Your task to perform on an android device: open app "Clock" (install if not already installed) Image 0: 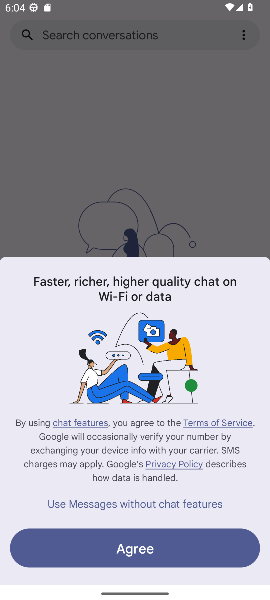
Step 0: press home button
Your task to perform on an android device: open app "Clock" (install if not already installed) Image 1: 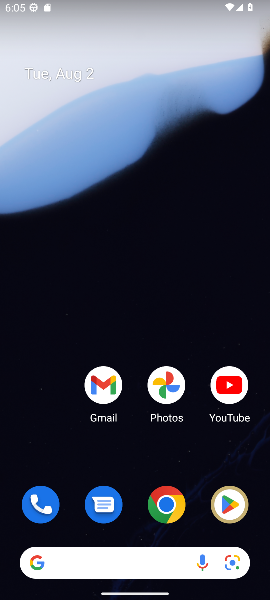
Step 1: drag from (193, 419) to (120, 97)
Your task to perform on an android device: open app "Clock" (install if not already installed) Image 2: 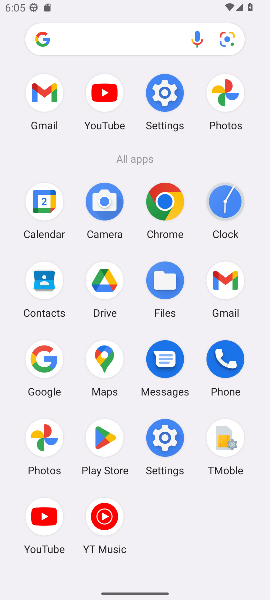
Step 2: click (231, 198)
Your task to perform on an android device: open app "Clock" (install if not already installed) Image 3: 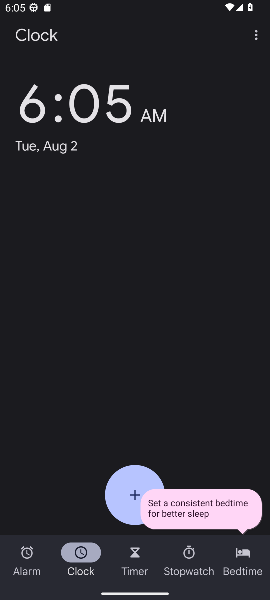
Step 3: task complete